Your task to perform on an android device: Search for "logitech g502" on newegg.com, select the first entry, add it to the cart, then select checkout. Image 0: 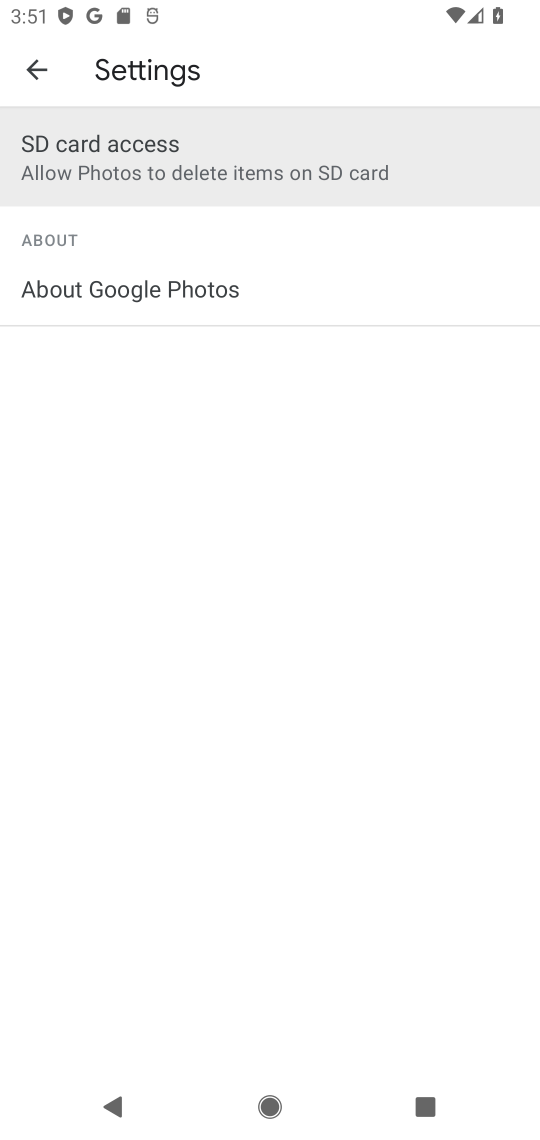
Step 0: press home button
Your task to perform on an android device: Search for "logitech g502" on newegg.com, select the first entry, add it to the cart, then select checkout. Image 1: 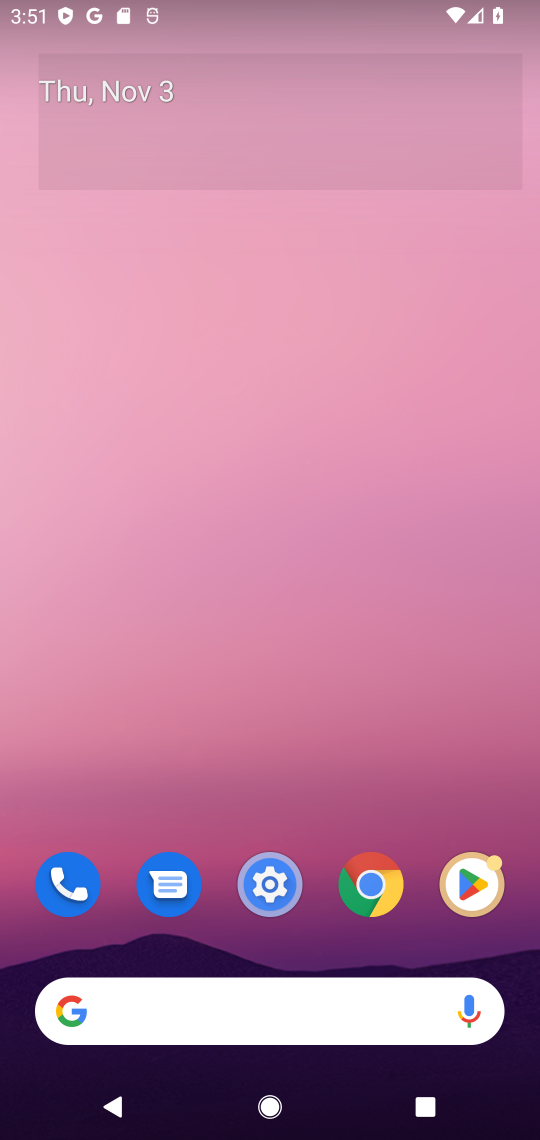
Step 1: click (129, 1007)
Your task to perform on an android device: Search for "logitech g502" on newegg.com, select the first entry, add it to the cart, then select checkout. Image 2: 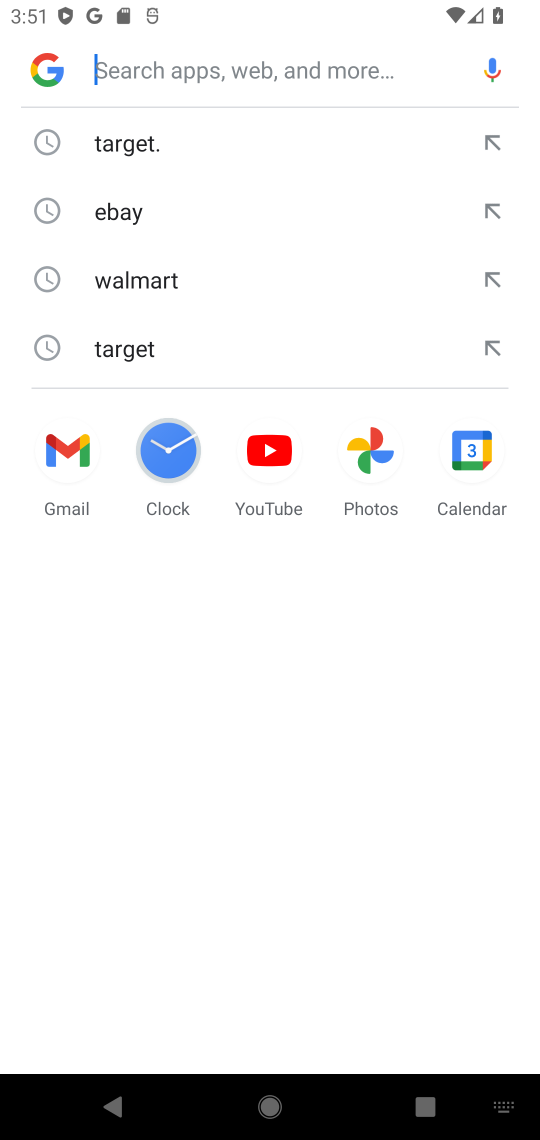
Step 2: type "newegg.com"
Your task to perform on an android device: Search for "logitech g502" on newegg.com, select the first entry, add it to the cart, then select checkout. Image 3: 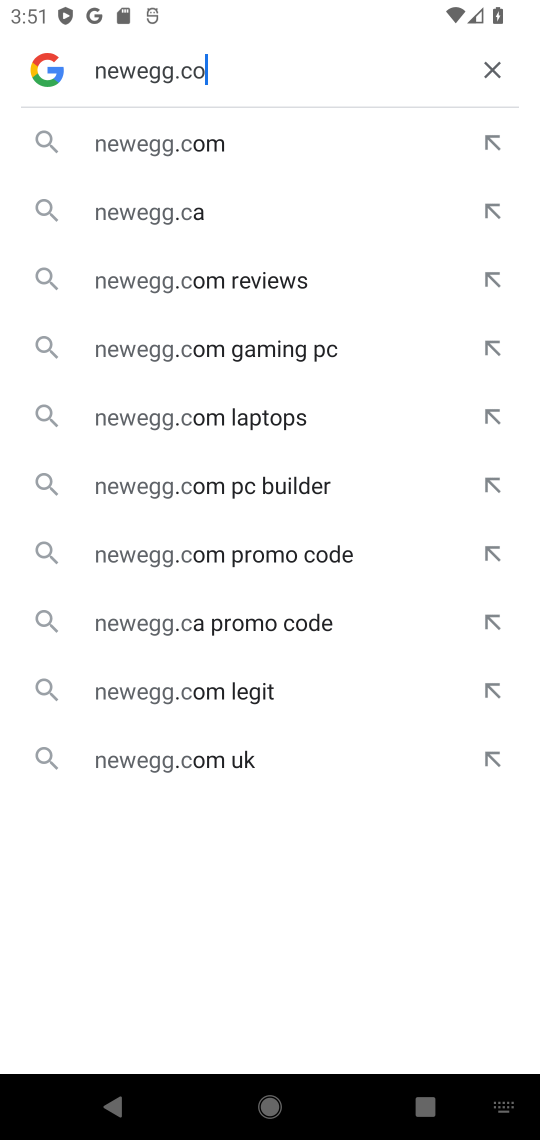
Step 3: press enter
Your task to perform on an android device: Search for "logitech g502" on newegg.com, select the first entry, add it to the cart, then select checkout. Image 4: 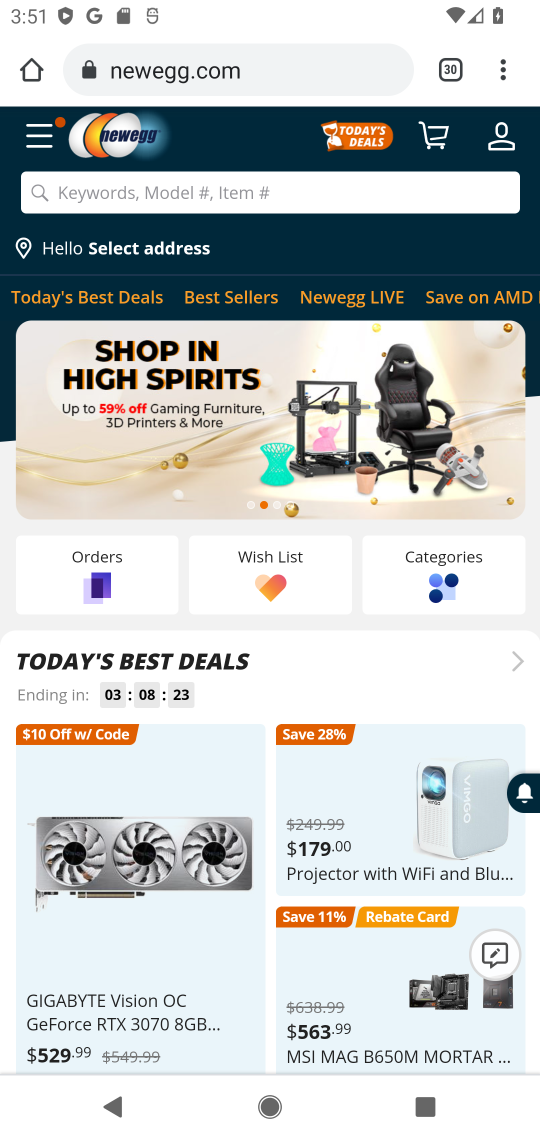
Step 4: click (60, 183)
Your task to perform on an android device: Search for "logitech g502" on newegg.com, select the first entry, add it to the cart, then select checkout. Image 5: 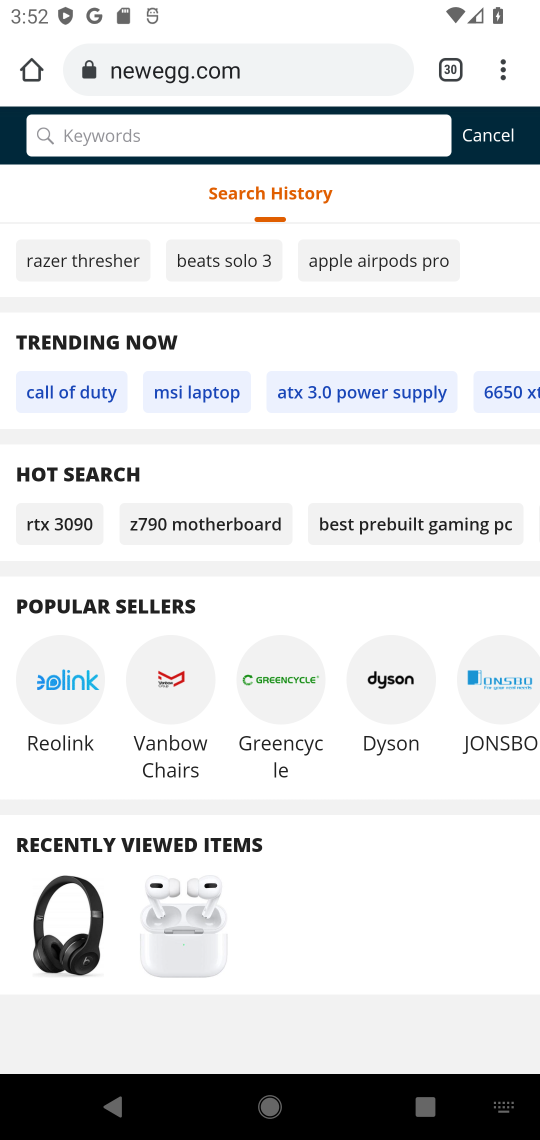
Step 5: type "logitech g502"
Your task to perform on an android device: Search for "logitech g502" on newegg.com, select the first entry, add it to the cart, then select checkout. Image 6: 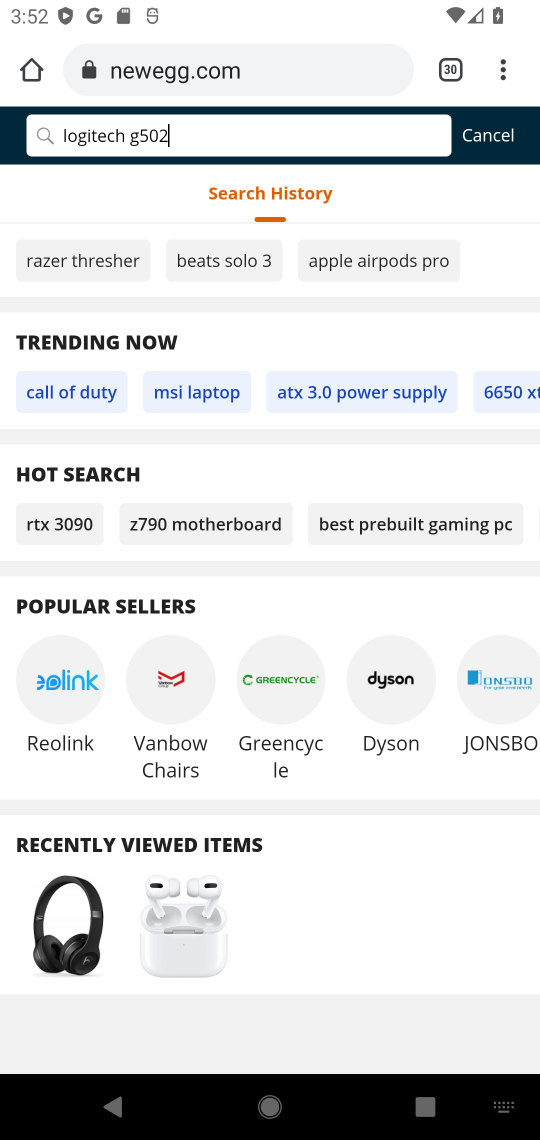
Step 6: press enter
Your task to perform on an android device: Search for "logitech g502" on newegg.com, select the first entry, add it to the cart, then select checkout. Image 7: 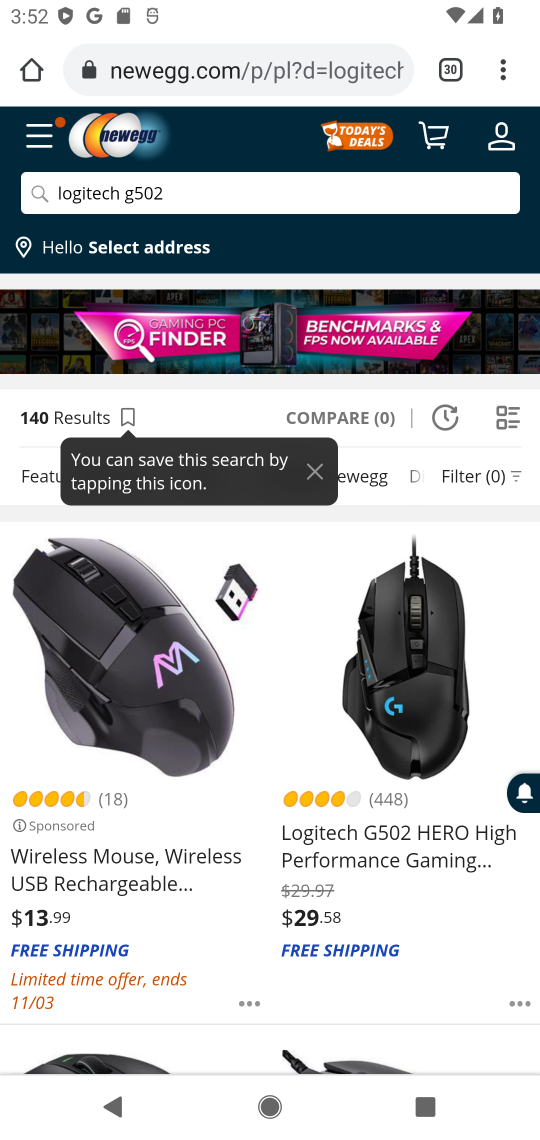
Step 7: click (382, 839)
Your task to perform on an android device: Search for "logitech g502" on newegg.com, select the first entry, add it to the cart, then select checkout. Image 8: 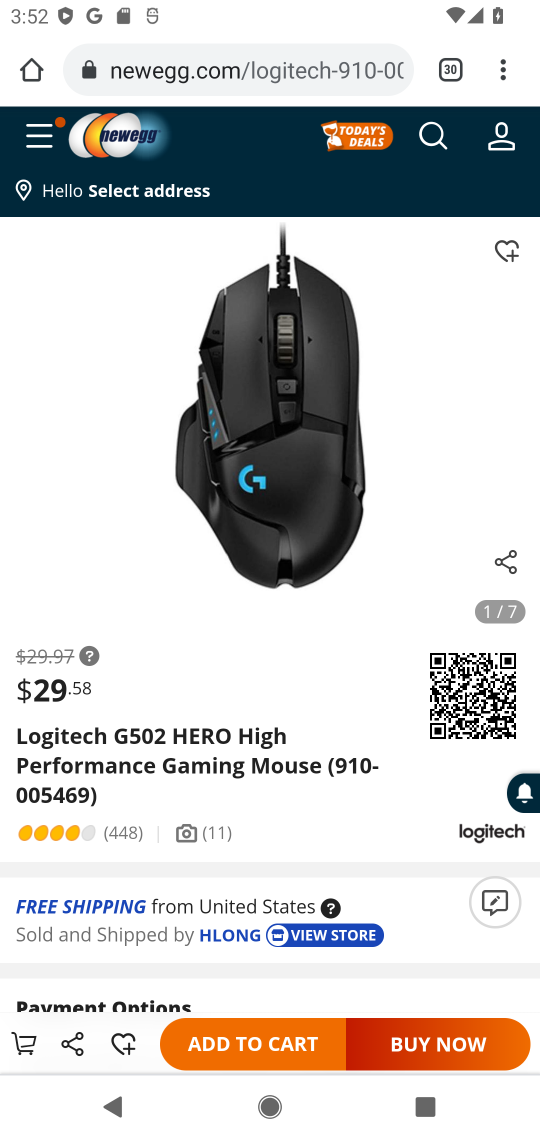
Step 8: click (208, 1044)
Your task to perform on an android device: Search for "logitech g502" on newegg.com, select the first entry, add it to the cart, then select checkout. Image 9: 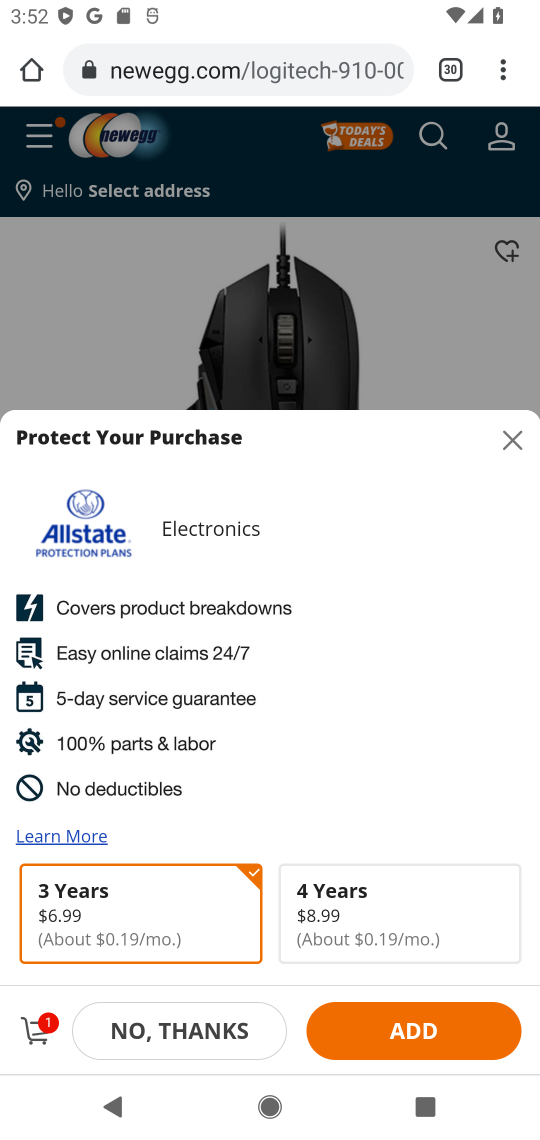
Step 9: click (165, 1036)
Your task to perform on an android device: Search for "logitech g502" on newegg.com, select the first entry, add it to the cart, then select checkout. Image 10: 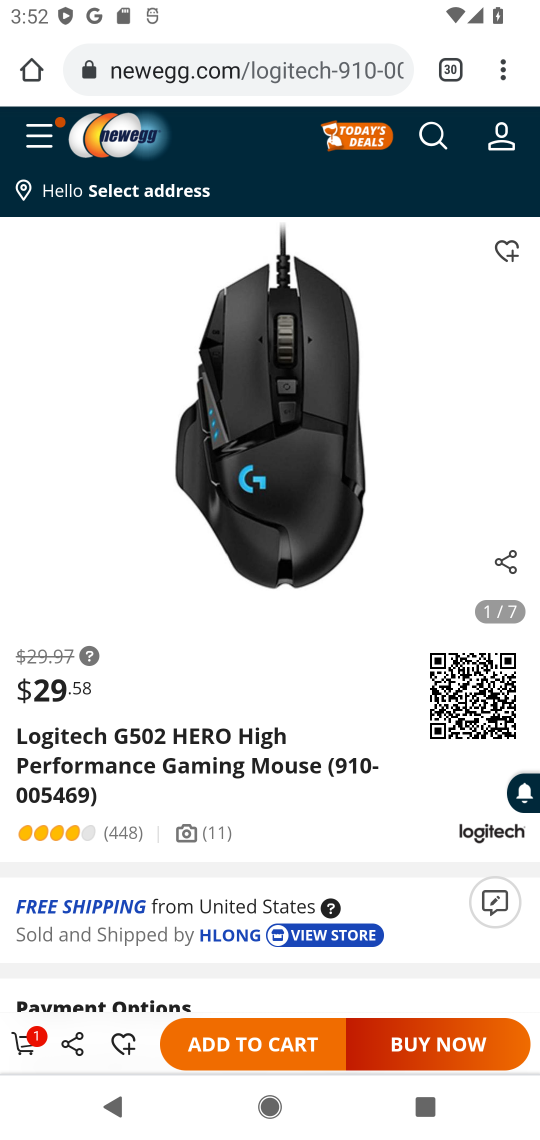
Step 10: click (14, 1034)
Your task to perform on an android device: Search for "logitech g502" on newegg.com, select the first entry, add it to the cart, then select checkout. Image 11: 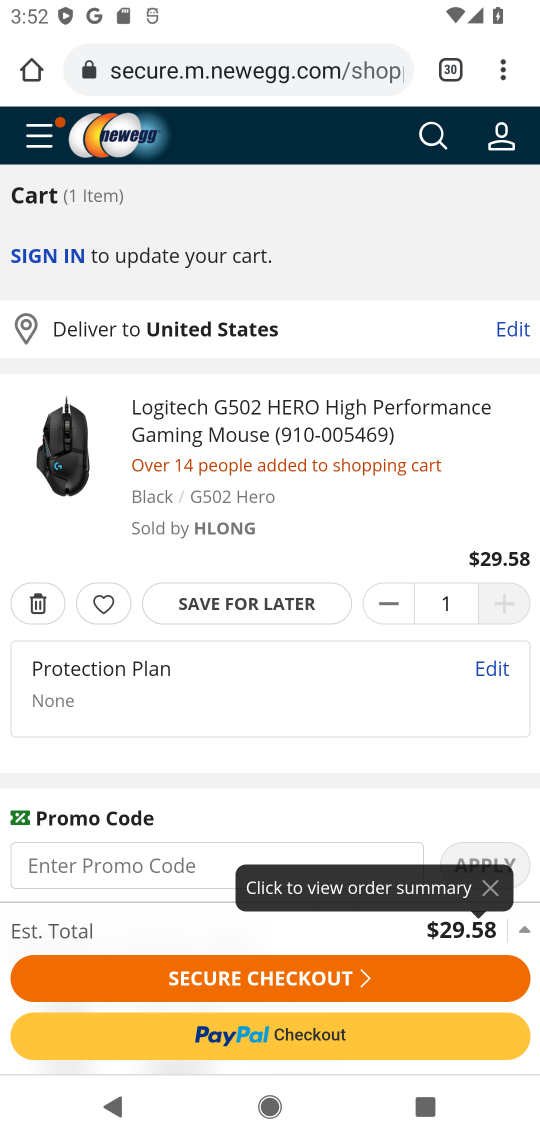
Step 11: click (278, 978)
Your task to perform on an android device: Search for "logitech g502" on newegg.com, select the first entry, add it to the cart, then select checkout. Image 12: 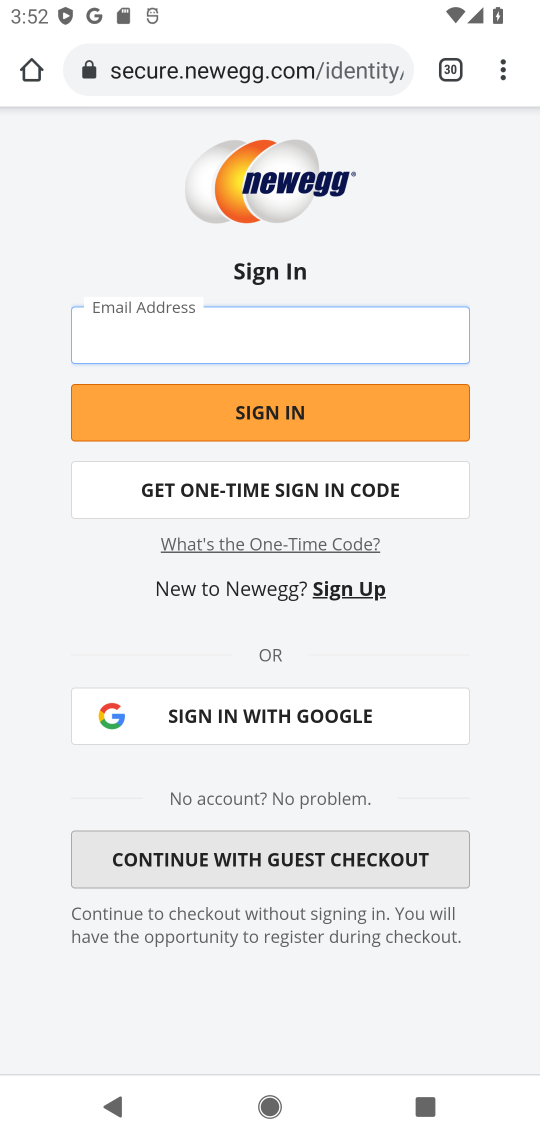
Step 12: task complete